Your task to perform on an android device: What's the weather going to be this weekend? Image 0: 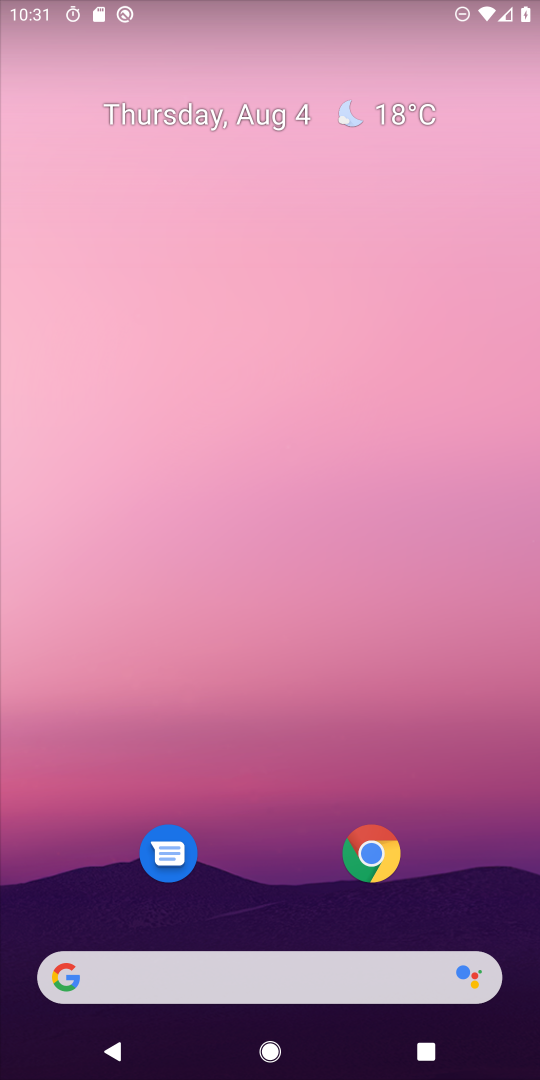
Step 0: click (273, 982)
Your task to perform on an android device: What's the weather going to be this weekend? Image 1: 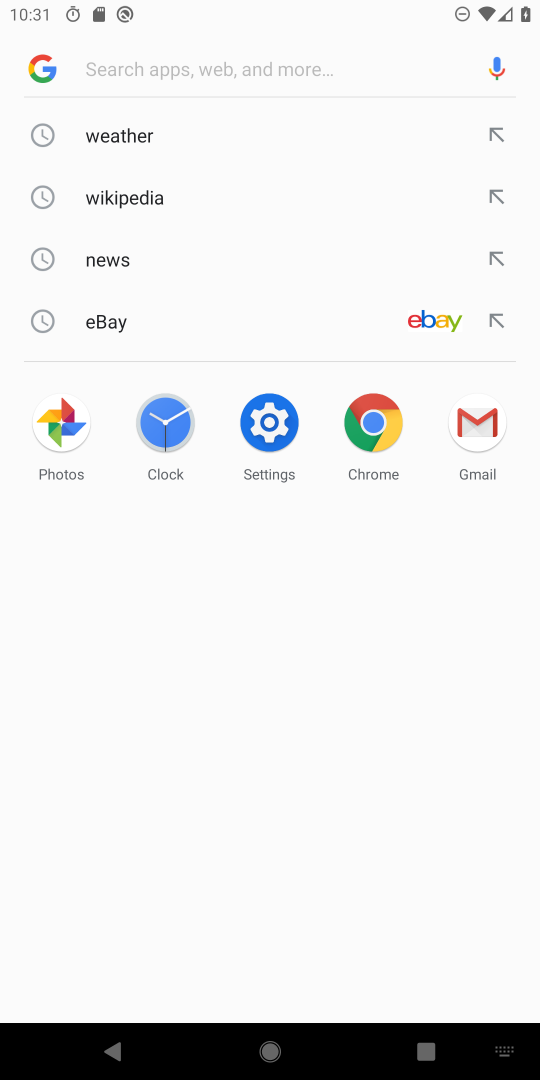
Step 1: click (118, 136)
Your task to perform on an android device: What's the weather going to be this weekend? Image 2: 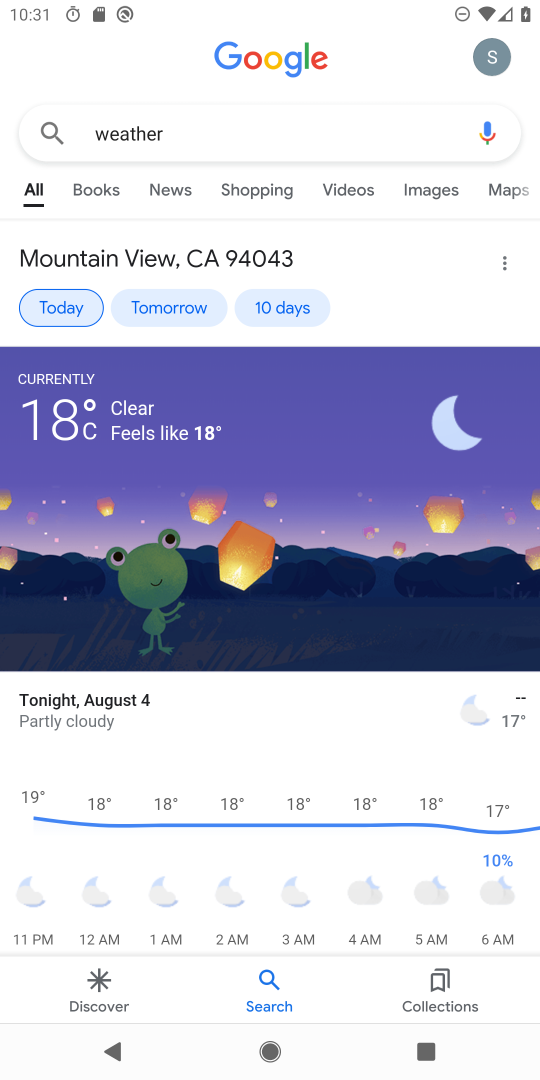
Step 2: click (275, 292)
Your task to perform on an android device: What's the weather going to be this weekend? Image 3: 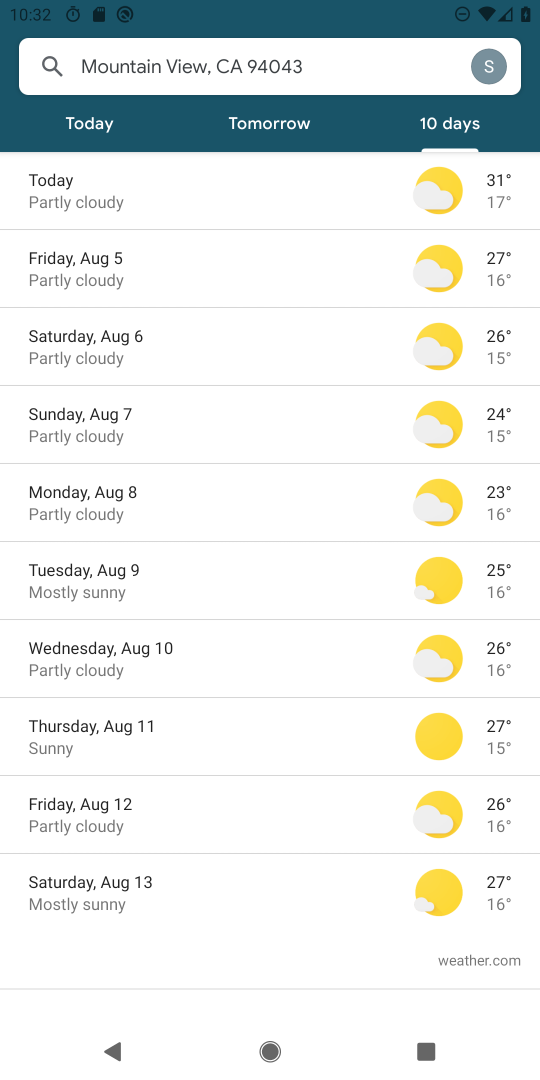
Step 3: task complete